Your task to perform on an android device: Open notification settings Image 0: 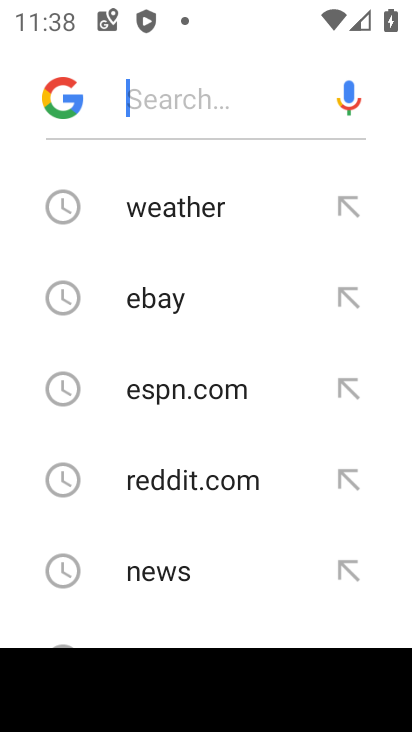
Step 0: press home button
Your task to perform on an android device: Open notification settings Image 1: 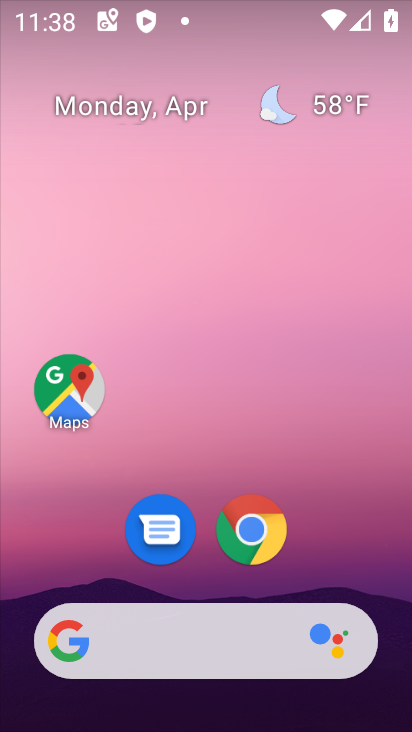
Step 1: drag from (368, 597) to (197, 95)
Your task to perform on an android device: Open notification settings Image 2: 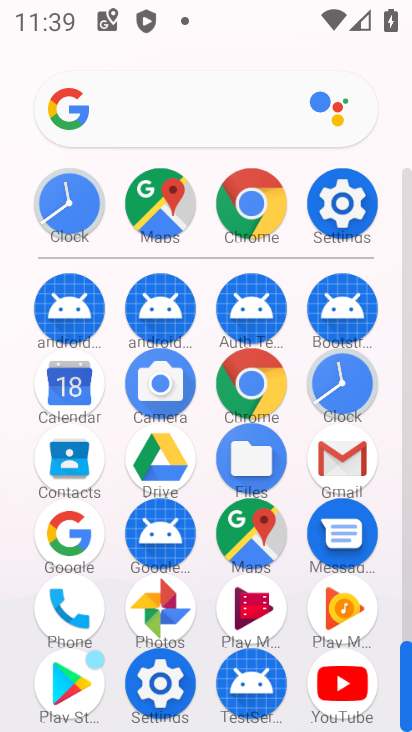
Step 2: click (341, 205)
Your task to perform on an android device: Open notification settings Image 3: 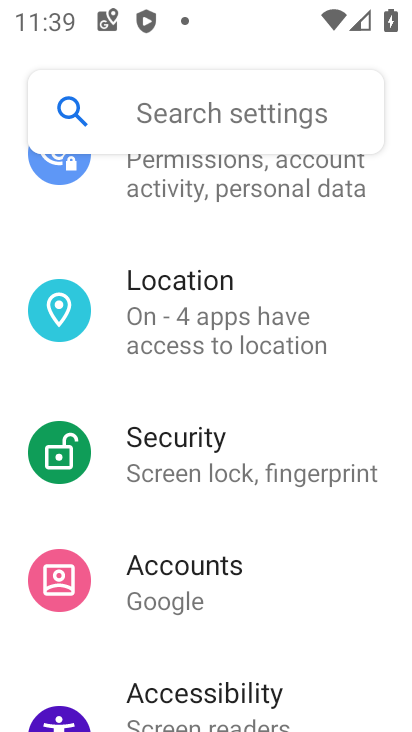
Step 3: drag from (203, 222) to (238, 601)
Your task to perform on an android device: Open notification settings Image 4: 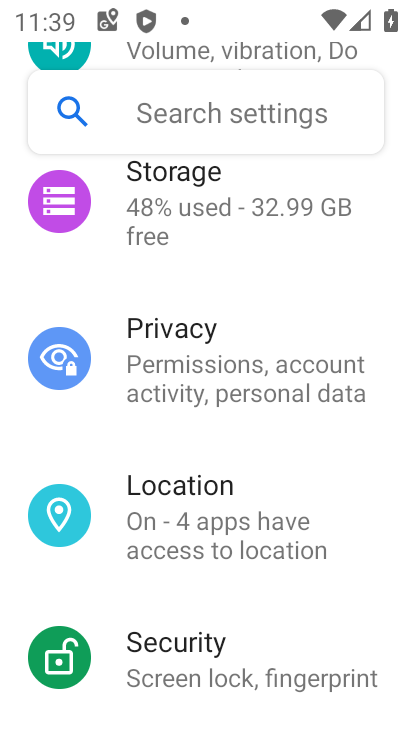
Step 4: drag from (200, 180) to (239, 589)
Your task to perform on an android device: Open notification settings Image 5: 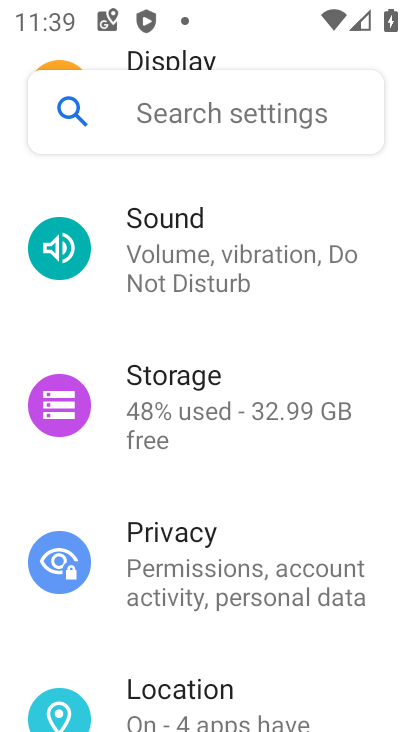
Step 5: drag from (195, 211) to (215, 592)
Your task to perform on an android device: Open notification settings Image 6: 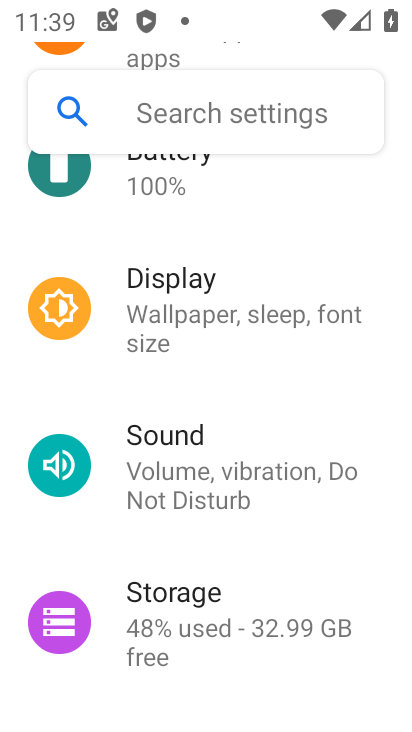
Step 6: drag from (172, 213) to (214, 575)
Your task to perform on an android device: Open notification settings Image 7: 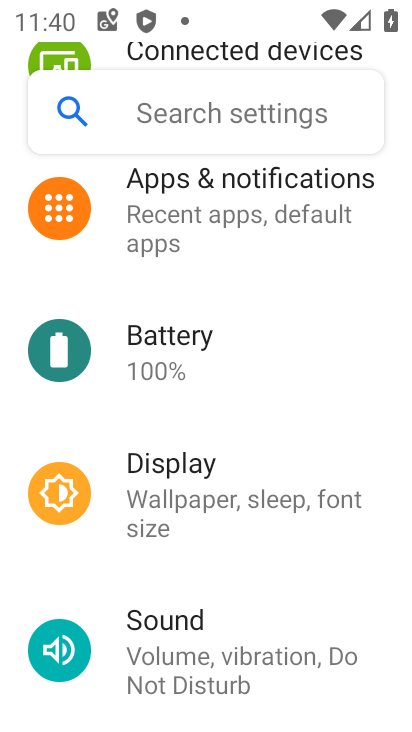
Step 7: click (274, 214)
Your task to perform on an android device: Open notification settings Image 8: 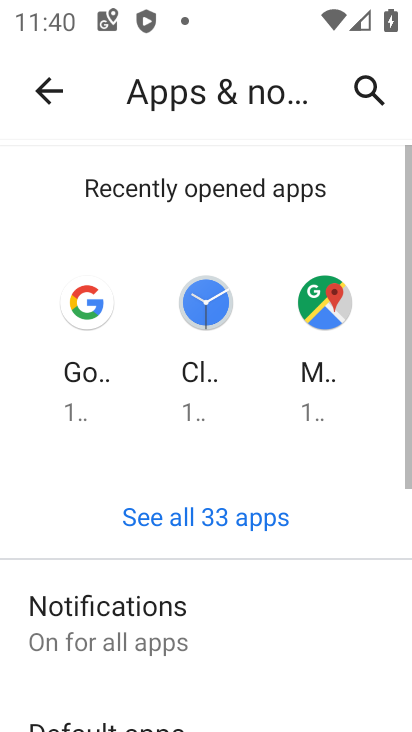
Step 8: click (245, 613)
Your task to perform on an android device: Open notification settings Image 9: 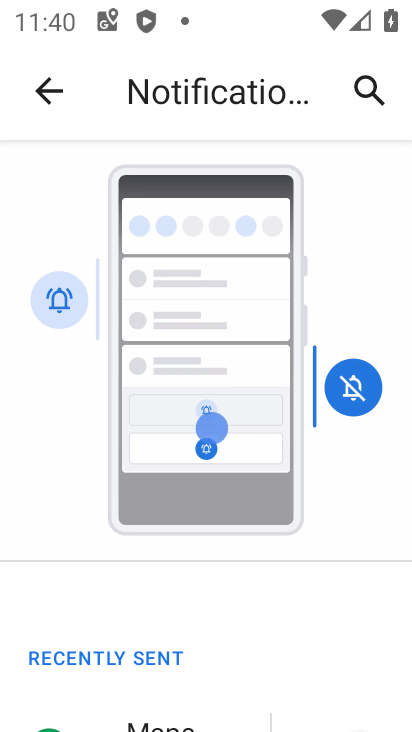
Step 9: task complete